Your task to perform on an android device: Check the news Image 0: 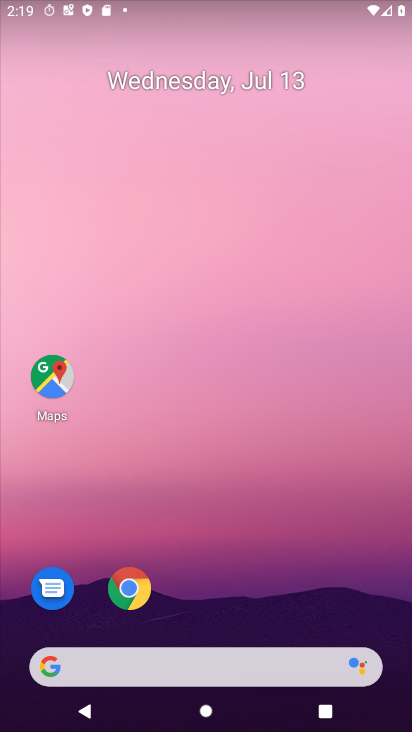
Step 0: drag from (228, 646) to (228, 286)
Your task to perform on an android device: Check the news Image 1: 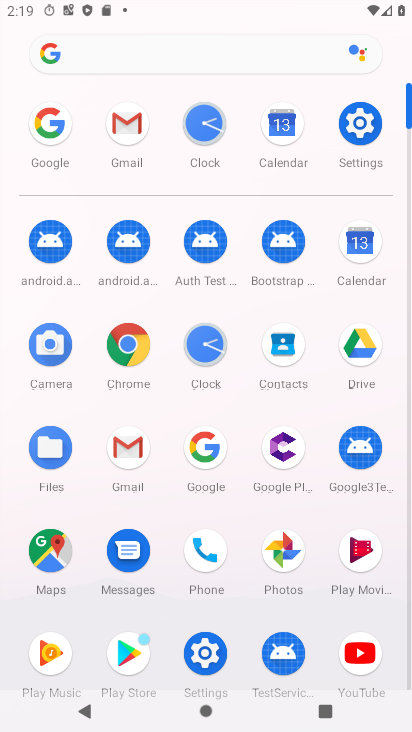
Step 1: click (206, 446)
Your task to perform on an android device: Check the news Image 2: 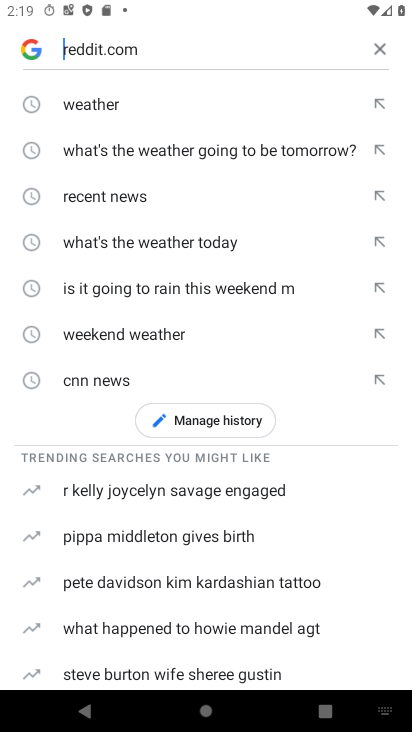
Step 2: drag from (189, 678) to (195, 413)
Your task to perform on an android device: Check the news Image 3: 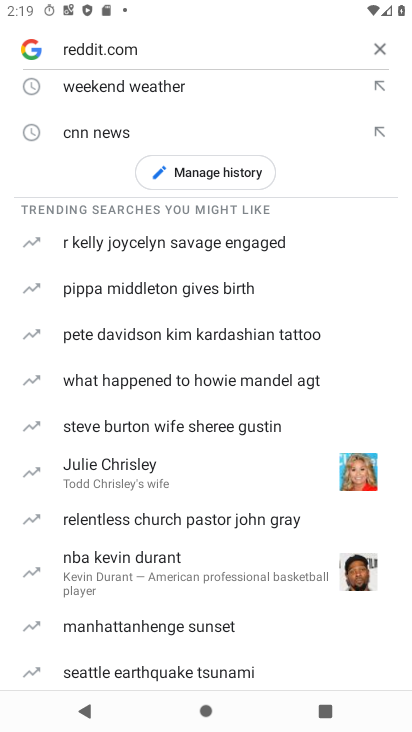
Step 3: drag from (132, 102) to (172, 454)
Your task to perform on an android device: Check the news Image 4: 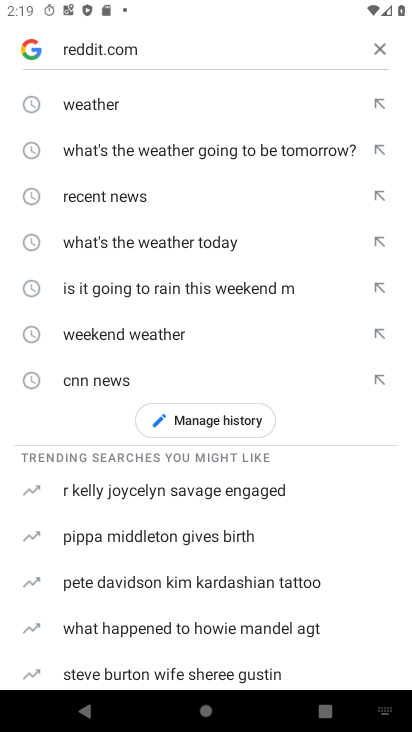
Step 4: drag from (126, 139) to (164, 437)
Your task to perform on an android device: Check the news Image 5: 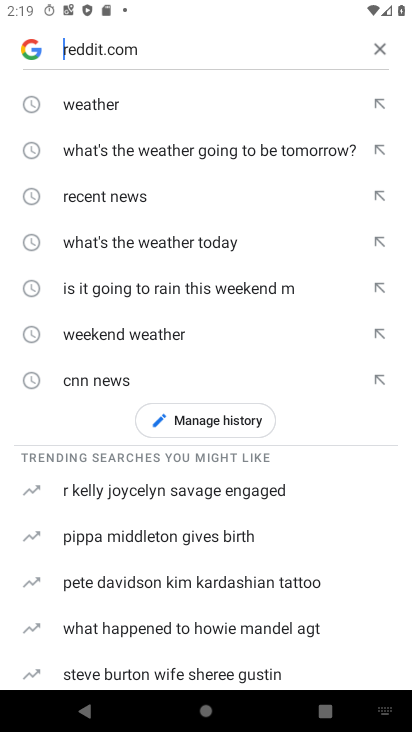
Step 5: click (126, 201)
Your task to perform on an android device: Check the news Image 6: 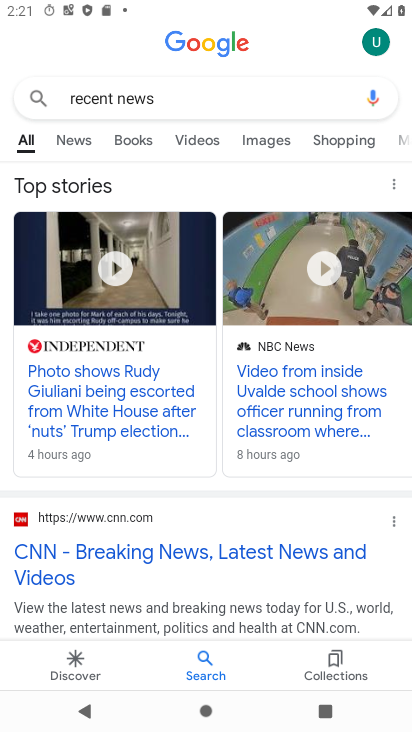
Step 6: task complete